Your task to perform on an android device: Open settings Image 0: 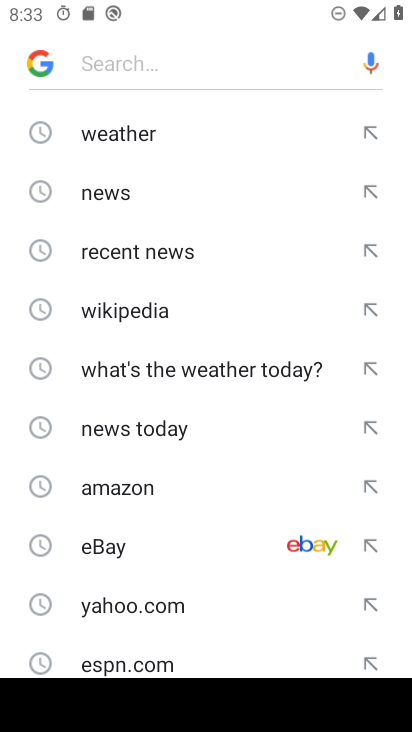
Step 0: press home button
Your task to perform on an android device: Open settings Image 1: 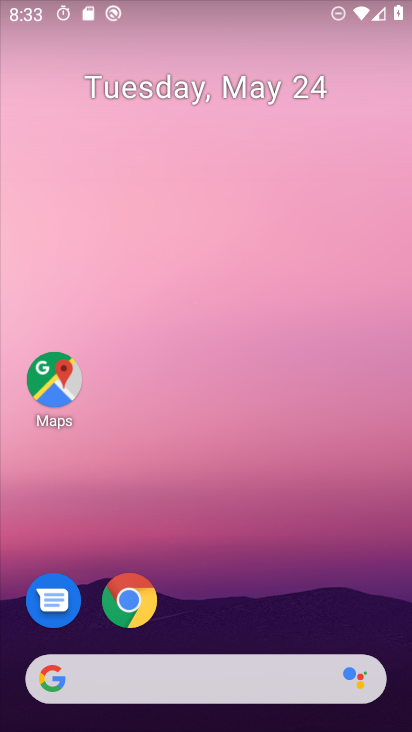
Step 1: drag from (292, 546) to (322, 71)
Your task to perform on an android device: Open settings Image 2: 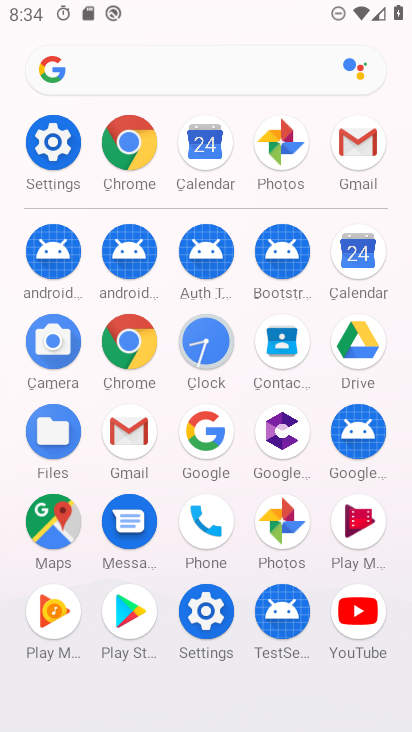
Step 2: click (49, 141)
Your task to perform on an android device: Open settings Image 3: 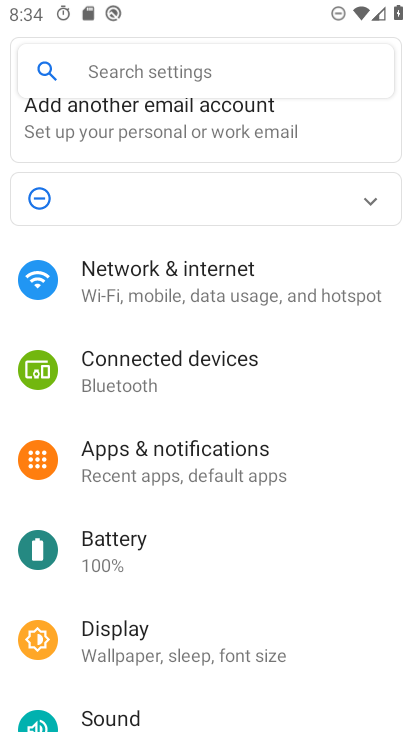
Step 3: task complete